Your task to perform on an android device: toggle sleep mode Image 0: 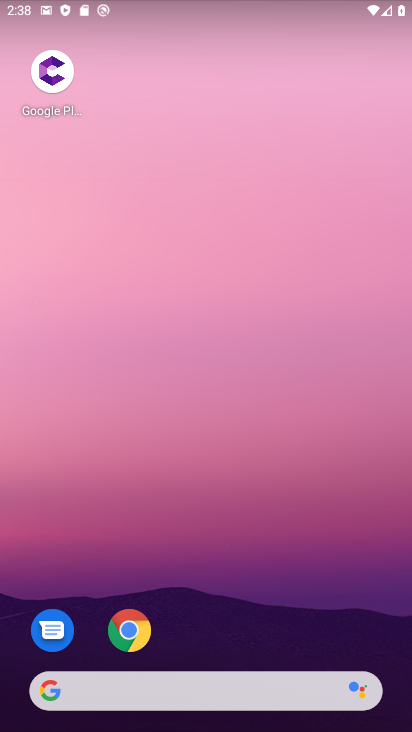
Step 0: drag from (176, 667) to (205, 16)
Your task to perform on an android device: toggle sleep mode Image 1: 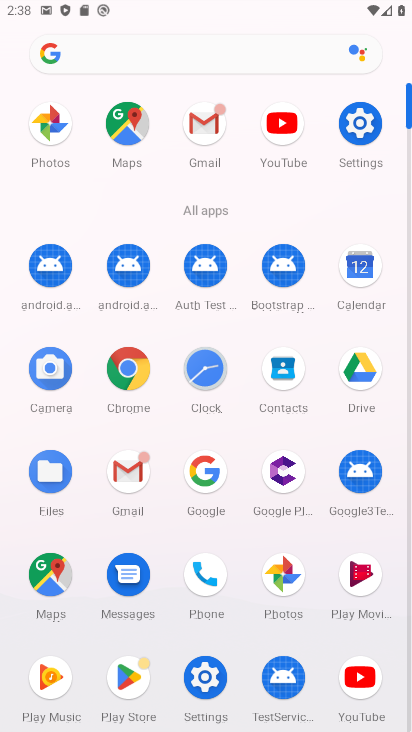
Step 1: click (363, 133)
Your task to perform on an android device: toggle sleep mode Image 2: 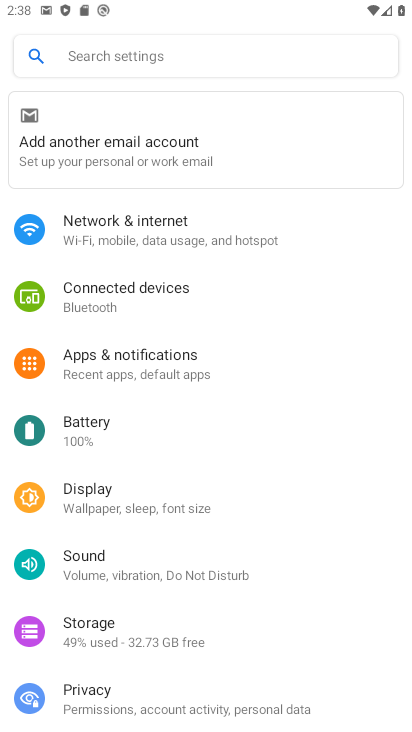
Step 2: click (104, 505)
Your task to perform on an android device: toggle sleep mode Image 3: 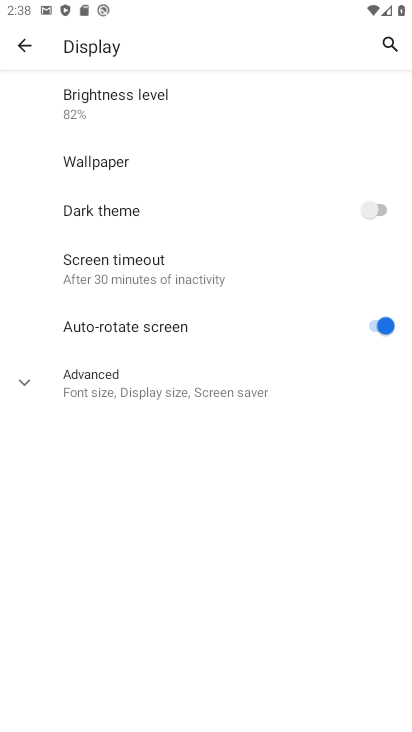
Step 3: task complete